Your task to perform on an android device: Show me recent news Image 0: 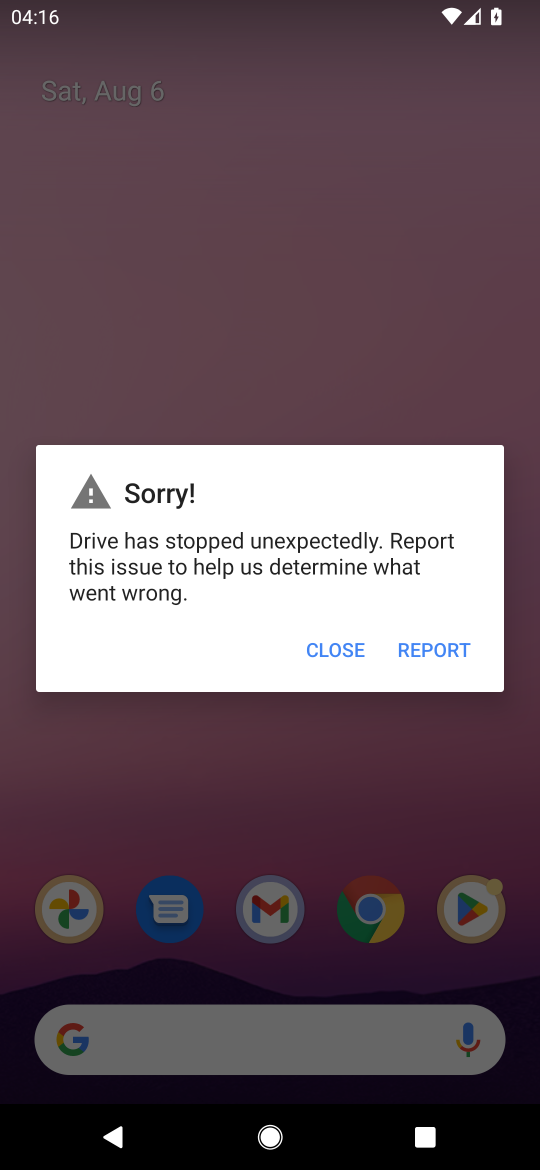
Step 0: click (335, 662)
Your task to perform on an android device: Show me recent news Image 1: 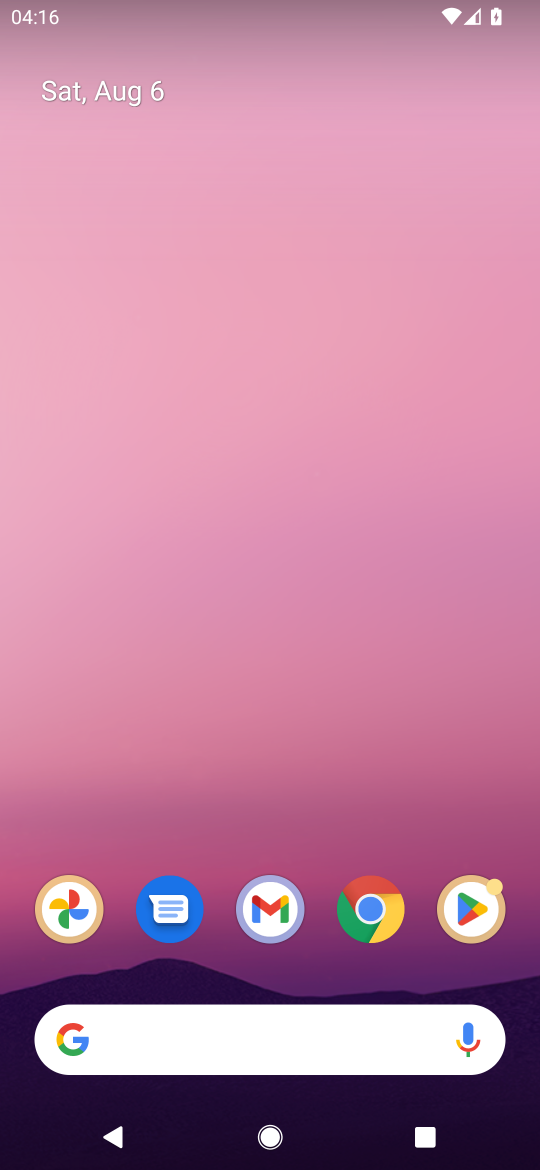
Step 1: click (220, 1017)
Your task to perform on an android device: Show me recent news Image 2: 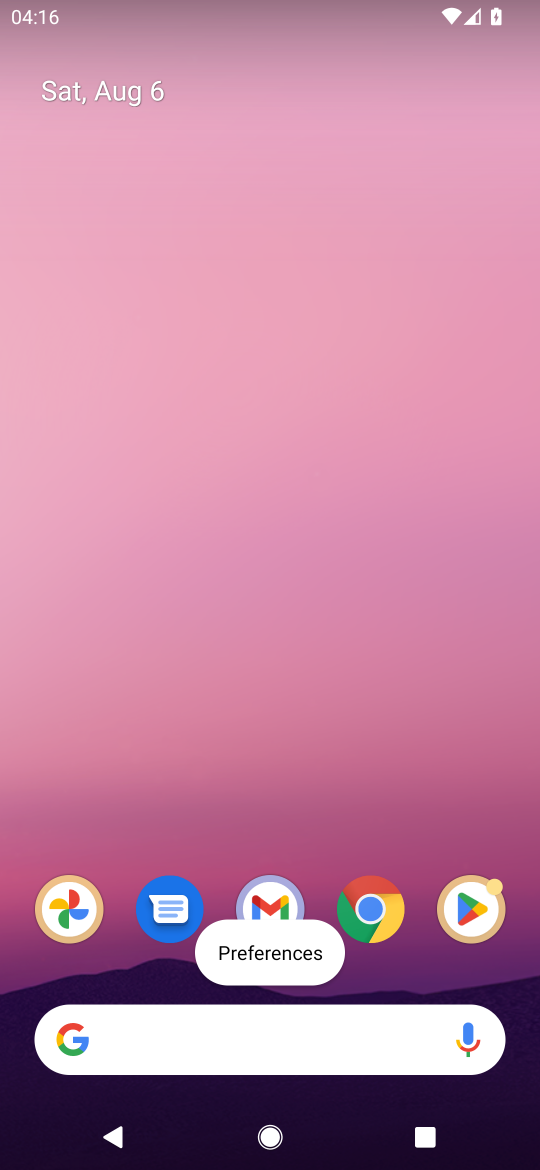
Step 2: click (182, 1018)
Your task to perform on an android device: Show me recent news Image 3: 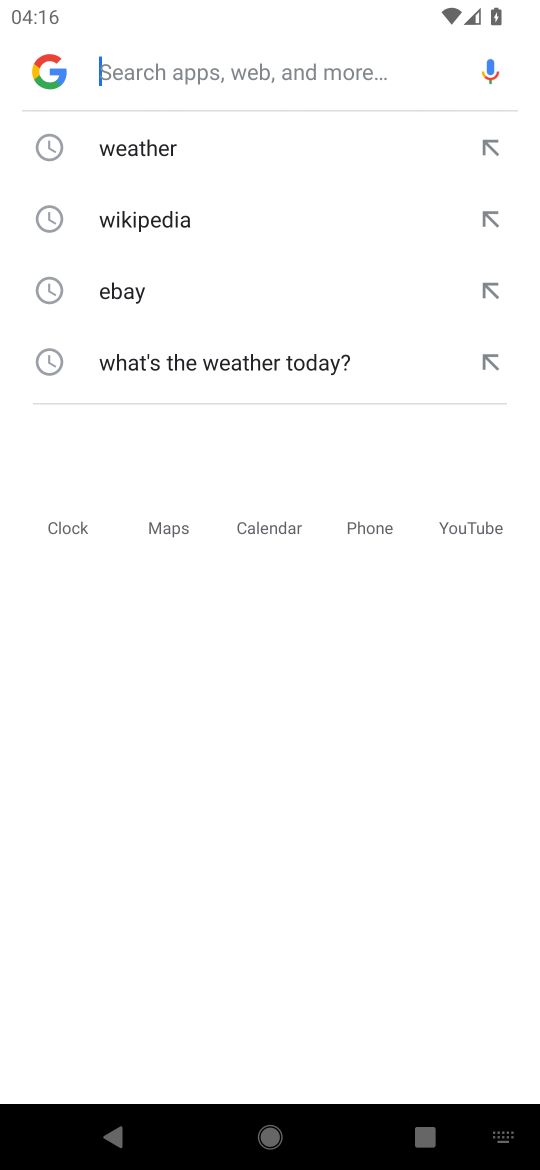
Step 3: click (143, 83)
Your task to perform on an android device: Show me recent news Image 4: 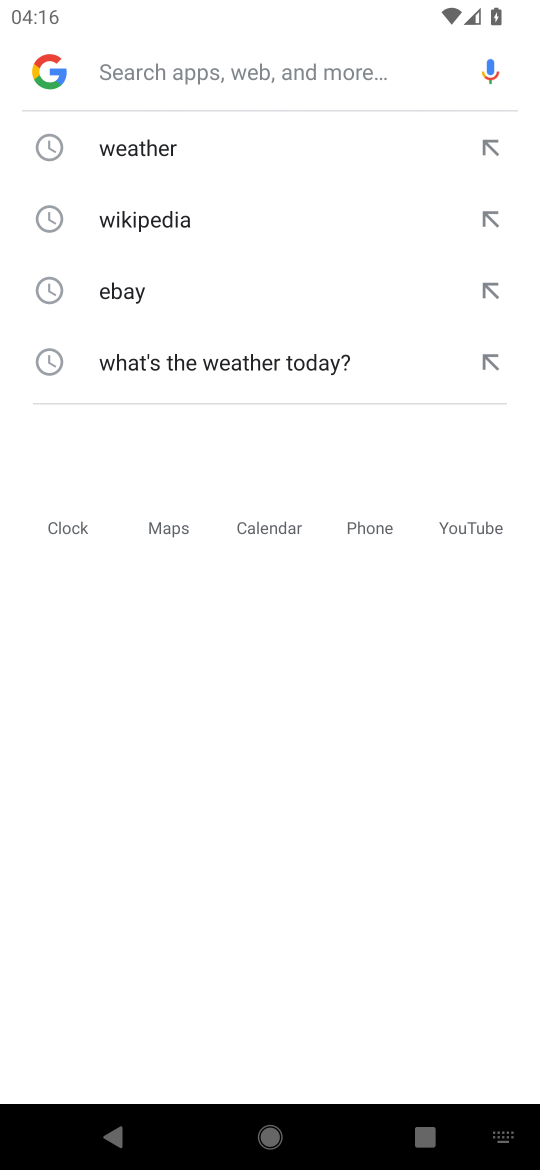
Step 4: type "recent news"
Your task to perform on an android device: Show me recent news Image 5: 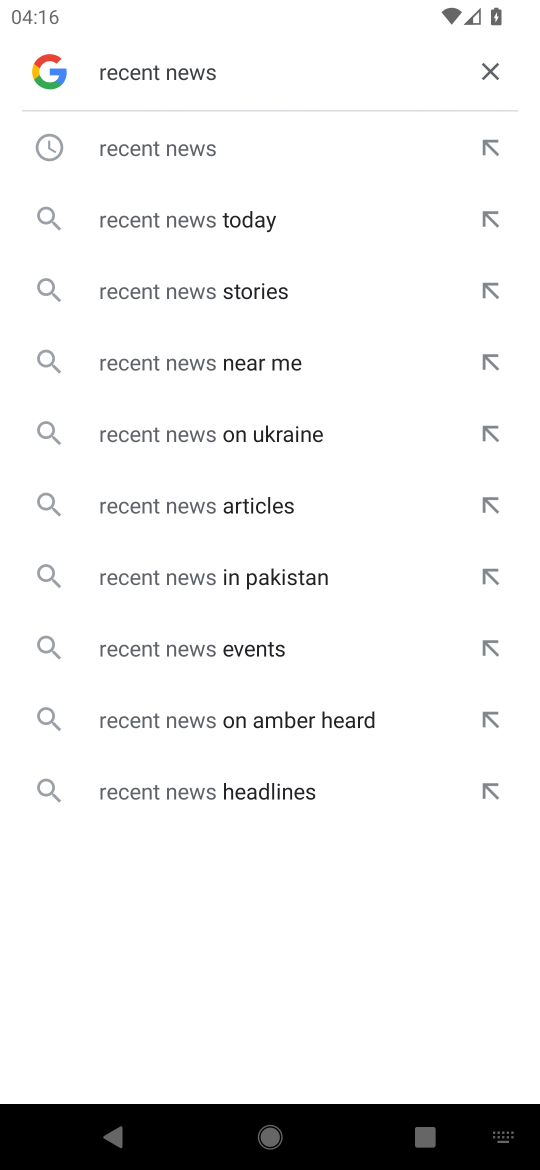
Step 5: click (143, 151)
Your task to perform on an android device: Show me recent news Image 6: 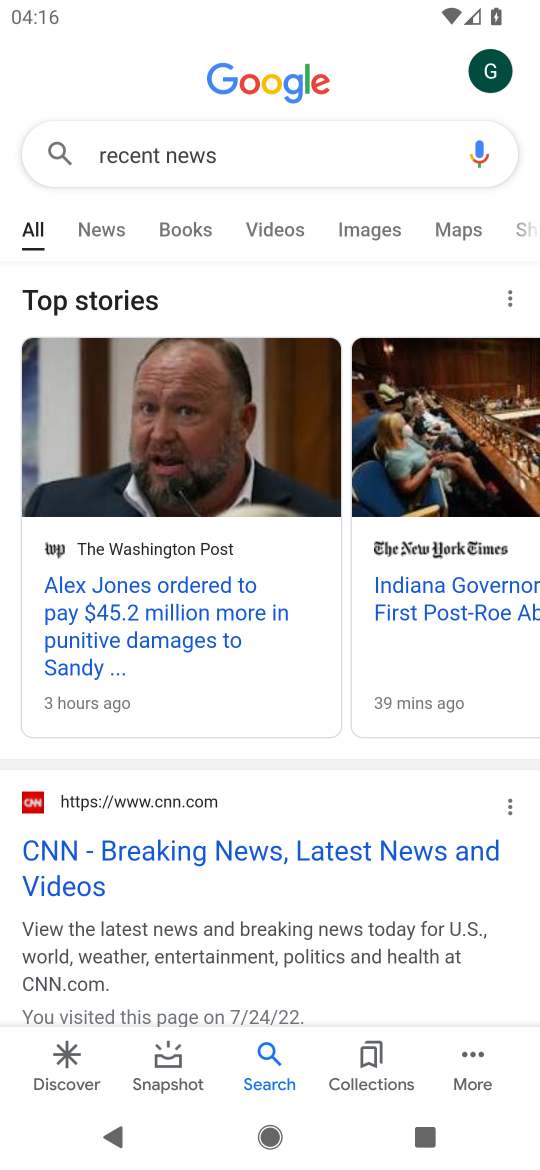
Step 6: task complete